Your task to perform on an android device: Open internet settings Image 0: 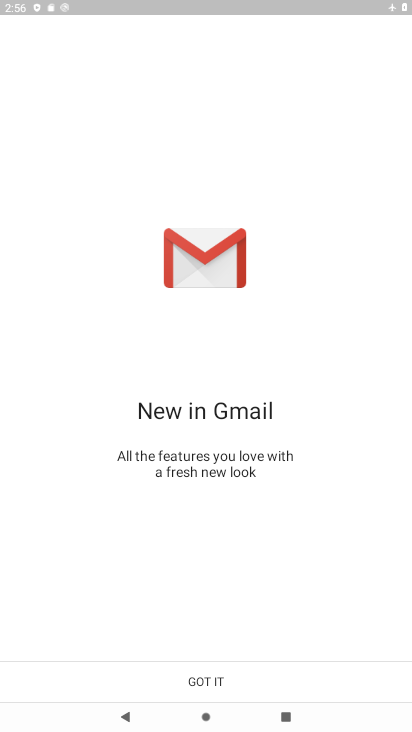
Step 0: press home button
Your task to perform on an android device: Open internet settings Image 1: 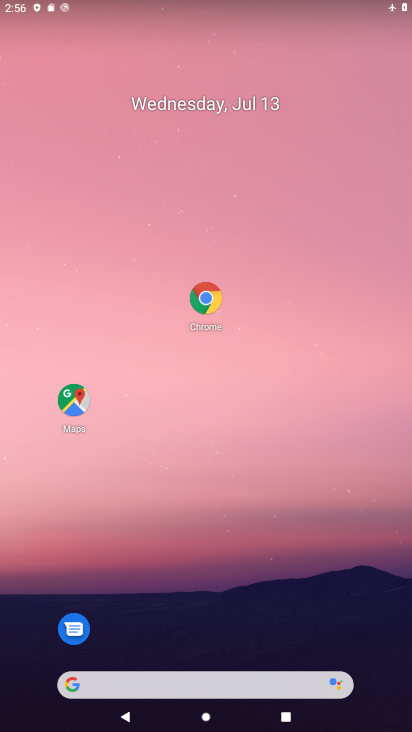
Step 1: drag from (207, 593) to (211, 149)
Your task to perform on an android device: Open internet settings Image 2: 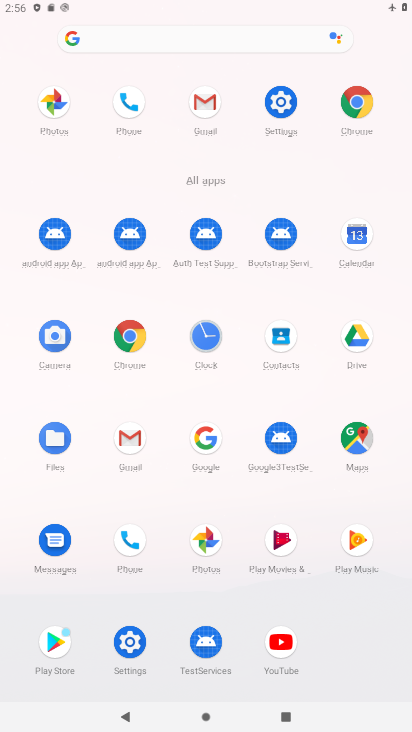
Step 2: click (280, 81)
Your task to perform on an android device: Open internet settings Image 3: 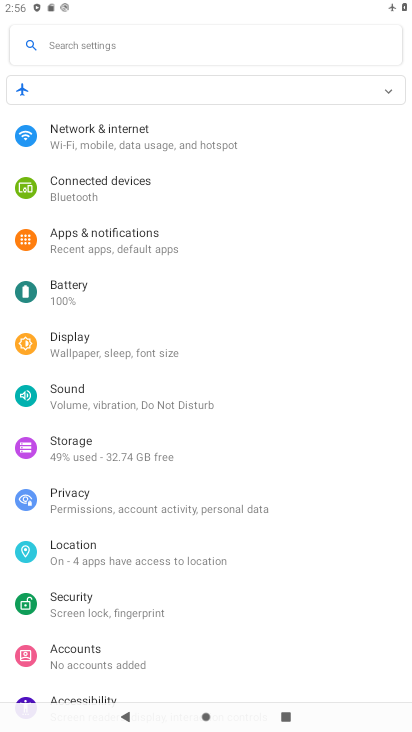
Step 3: click (148, 129)
Your task to perform on an android device: Open internet settings Image 4: 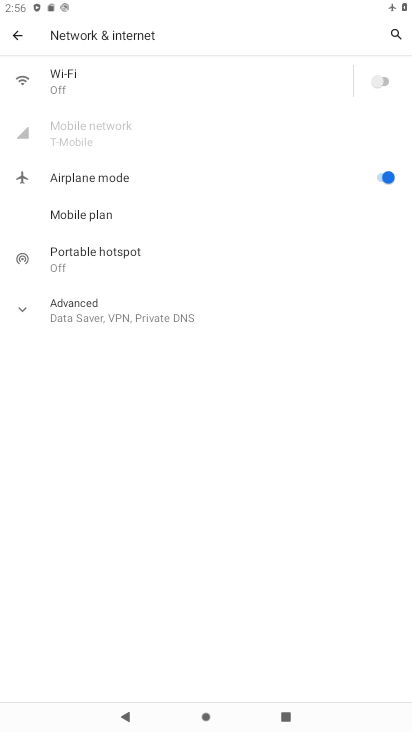
Step 4: task complete